Your task to perform on an android device: check android version Image 0: 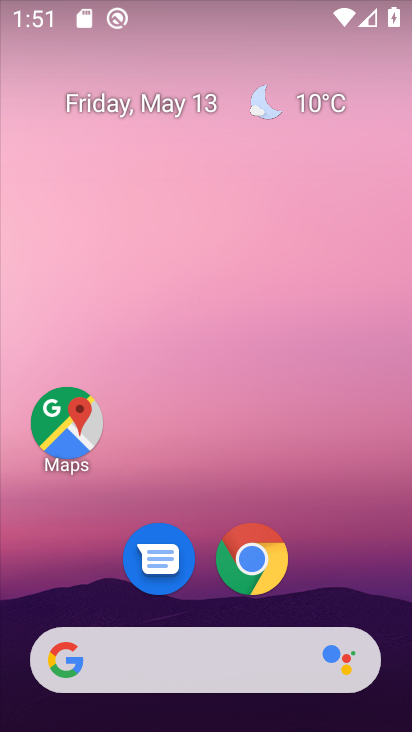
Step 0: drag from (397, 655) to (396, 308)
Your task to perform on an android device: check android version Image 1: 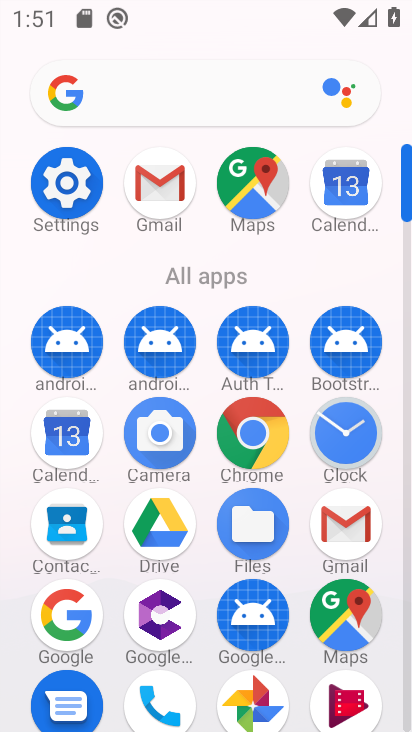
Step 1: click (70, 164)
Your task to perform on an android device: check android version Image 2: 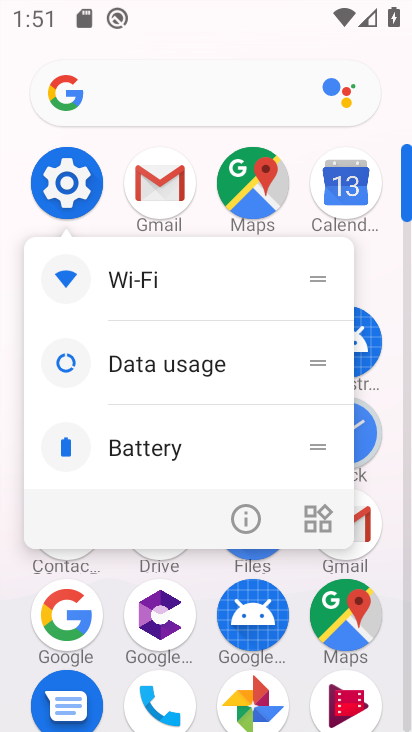
Step 2: click (56, 187)
Your task to perform on an android device: check android version Image 3: 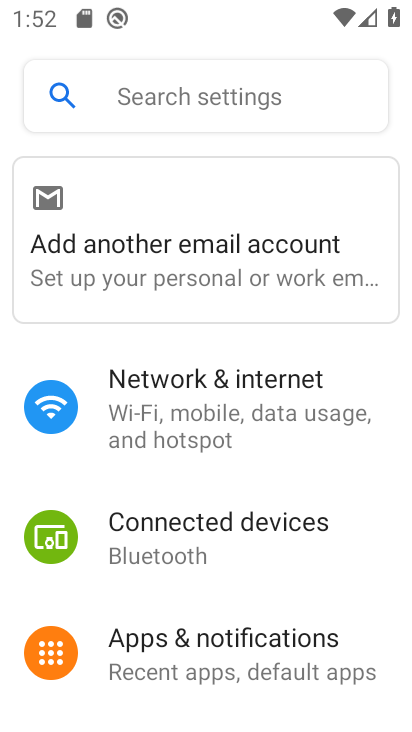
Step 3: drag from (271, 664) to (264, 308)
Your task to perform on an android device: check android version Image 4: 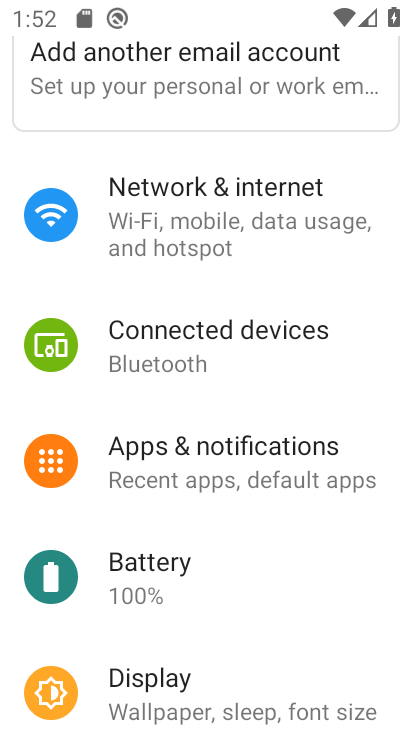
Step 4: drag from (305, 677) to (322, 456)
Your task to perform on an android device: check android version Image 5: 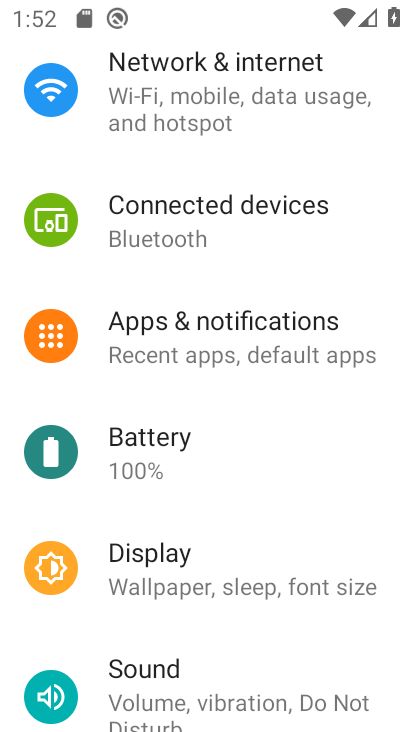
Step 5: drag from (294, 661) to (305, 281)
Your task to perform on an android device: check android version Image 6: 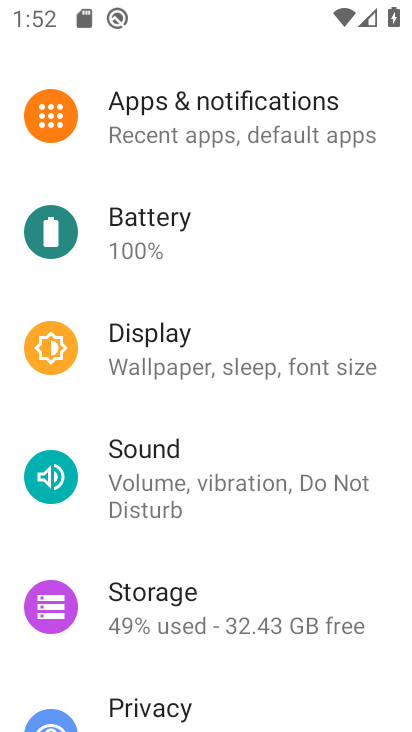
Step 6: drag from (326, 677) to (314, 391)
Your task to perform on an android device: check android version Image 7: 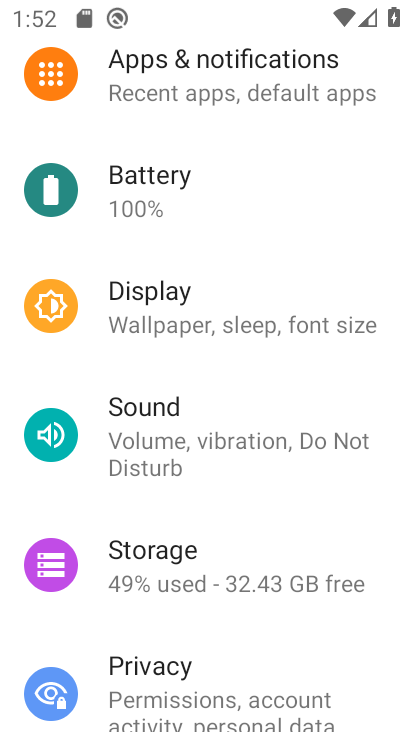
Step 7: drag from (363, 689) to (368, 398)
Your task to perform on an android device: check android version Image 8: 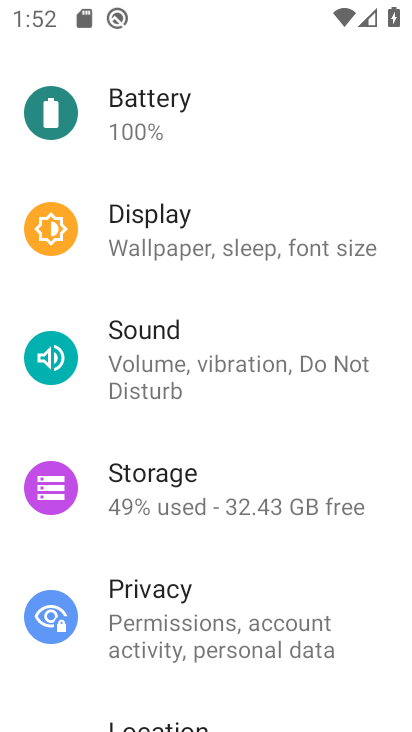
Step 8: drag from (355, 653) to (363, 396)
Your task to perform on an android device: check android version Image 9: 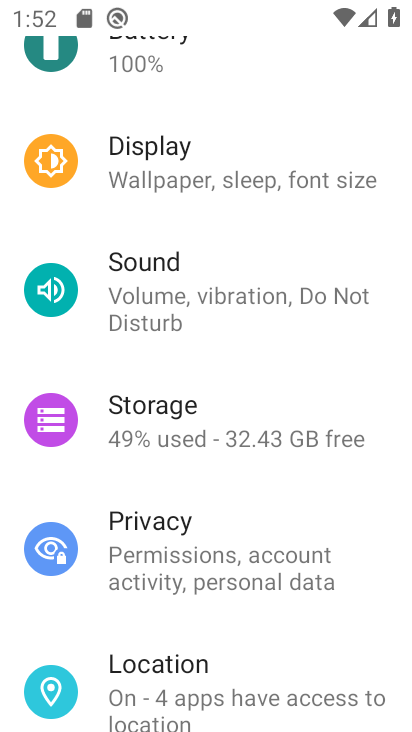
Step 9: drag from (391, 658) to (377, 340)
Your task to perform on an android device: check android version Image 10: 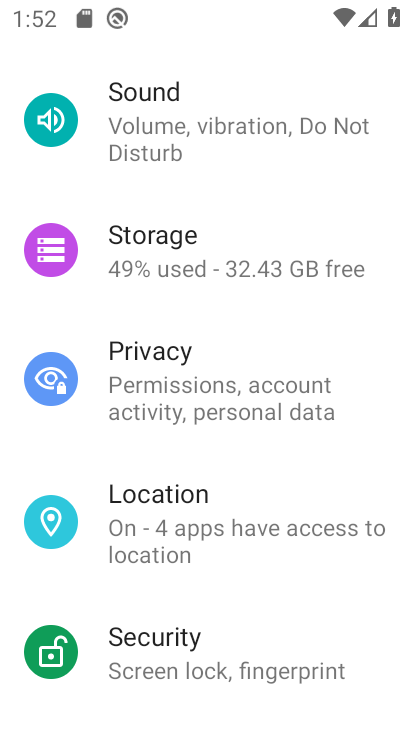
Step 10: drag from (363, 657) to (367, 386)
Your task to perform on an android device: check android version Image 11: 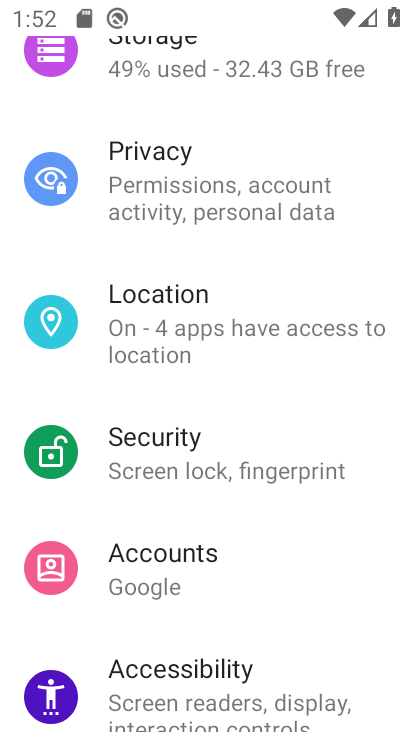
Step 11: drag from (390, 688) to (381, 406)
Your task to perform on an android device: check android version Image 12: 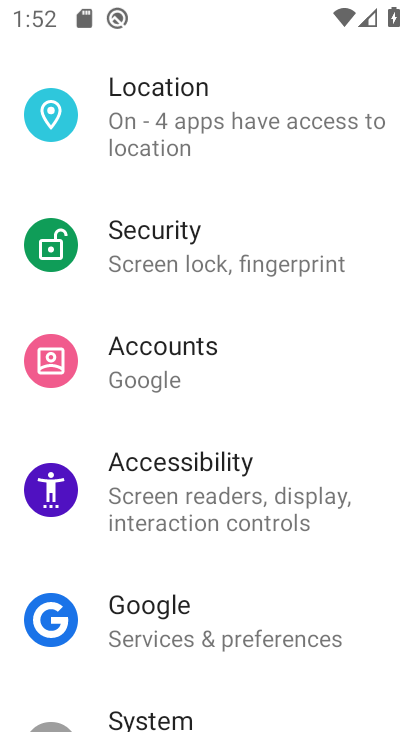
Step 12: drag from (374, 676) to (401, 318)
Your task to perform on an android device: check android version Image 13: 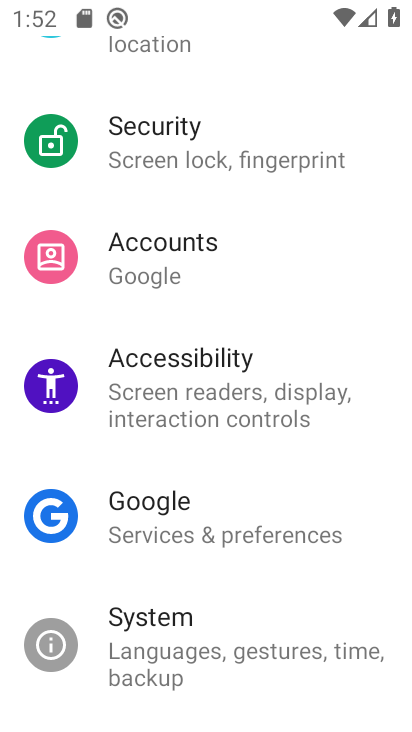
Step 13: drag from (382, 675) to (380, 303)
Your task to perform on an android device: check android version Image 14: 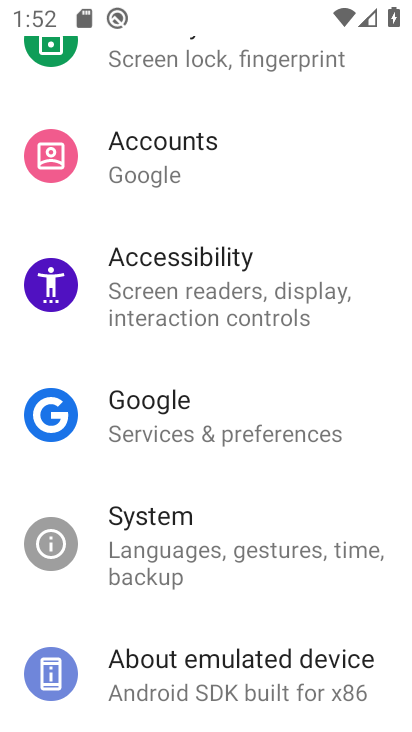
Step 14: click (162, 666)
Your task to perform on an android device: check android version Image 15: 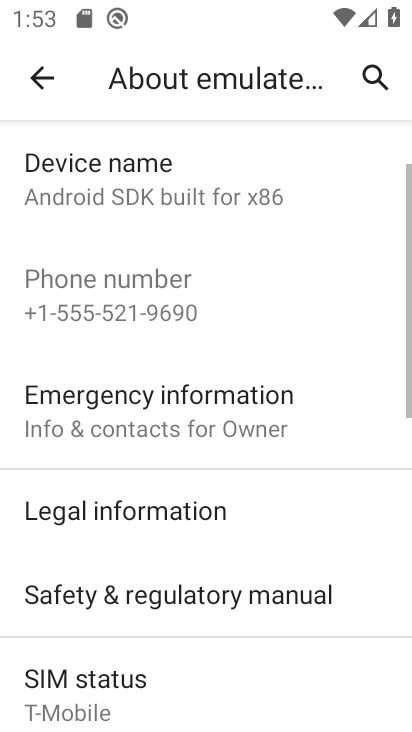
Step 15: task complete